Your task to perform on an android device: open a new tab in the chrome app Image 0: 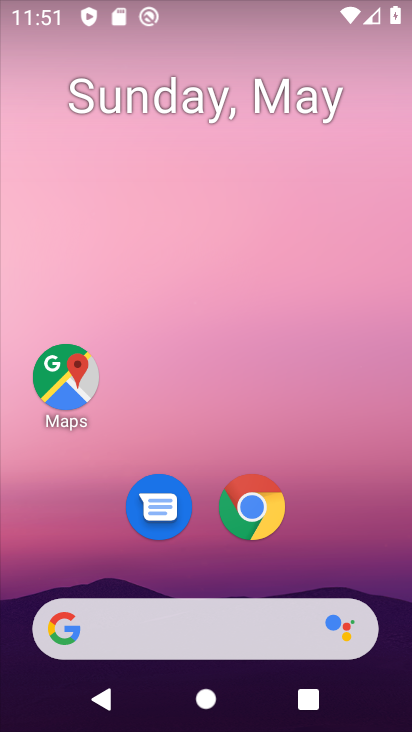
Step 0: click (247, 508)
Your task to perform on an android device: open a new tab in the chrome app Image 1: 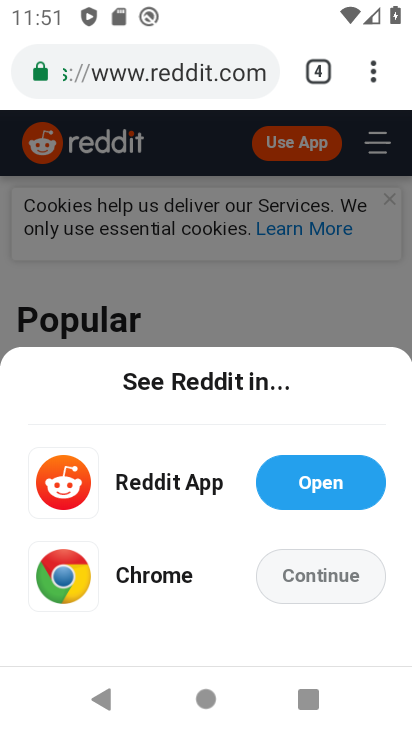
Step 1: click (371, 78)
Your task to perform on an android device: open a new tab in the chrome app Image 2: 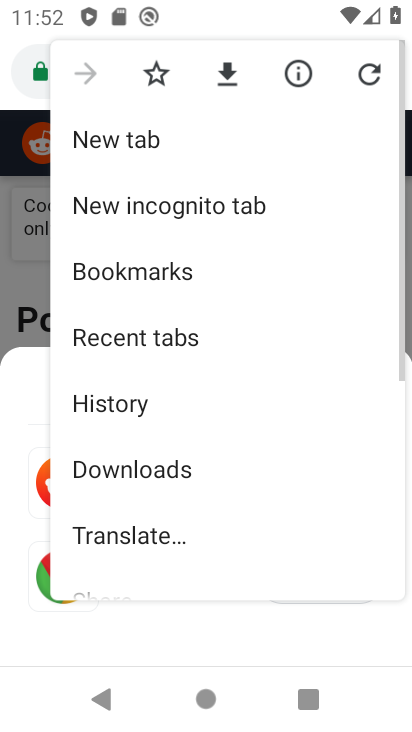
Step 2: click (113, 139)
Your task to perform on an android device: open a new tab in the chrome app Image 3: 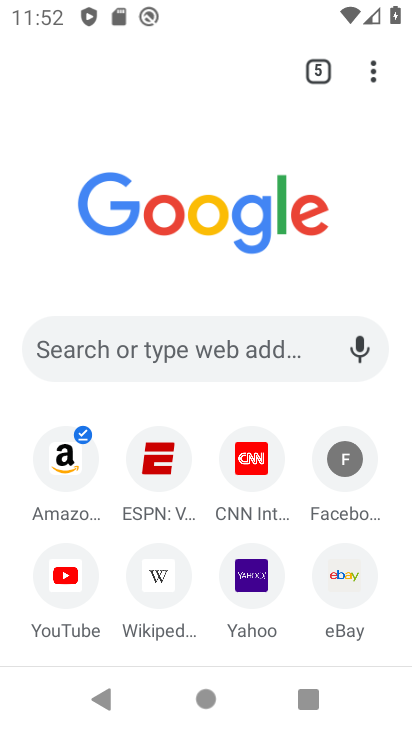
Step 3: task complete